Your task to perform on an android device: Show me popular games on the Play Store Image 0: 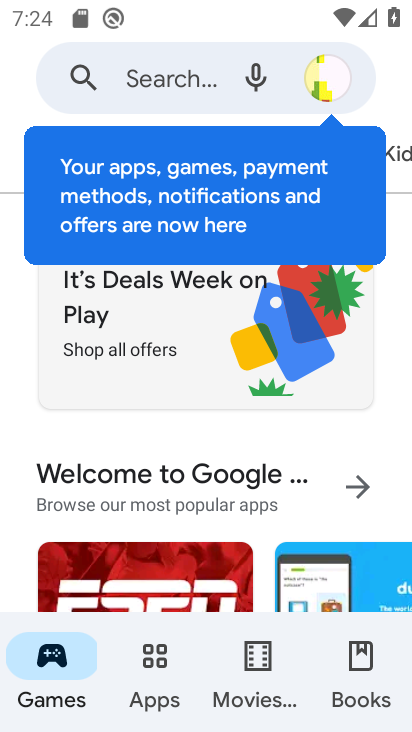
Step 0: press home button
Your task to perform on an android device: Show me popular games on the Play Store Image 1: 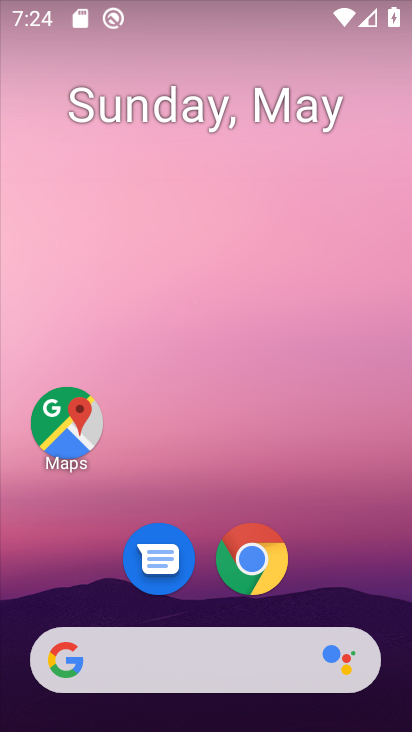
Step 1: drag from (213, 652) to (301, 0)
Your task to perform on an android device: Show me popular games on the Play Store Image 2: 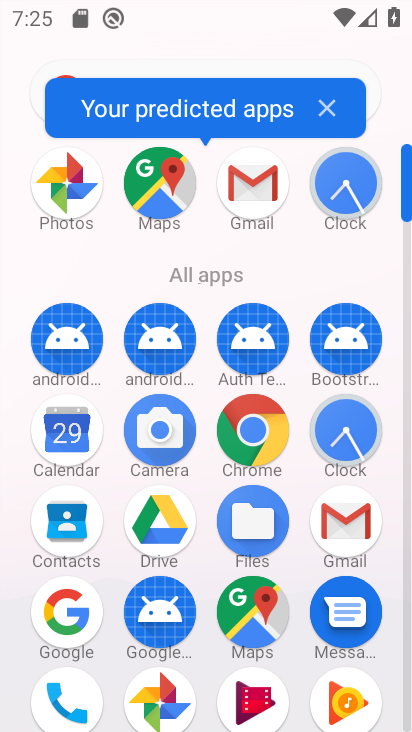
Step 2: drag from (173, 594) to (299, 223)
Your task to perform on an android device: Show me popular games on the Play Store Image 3: 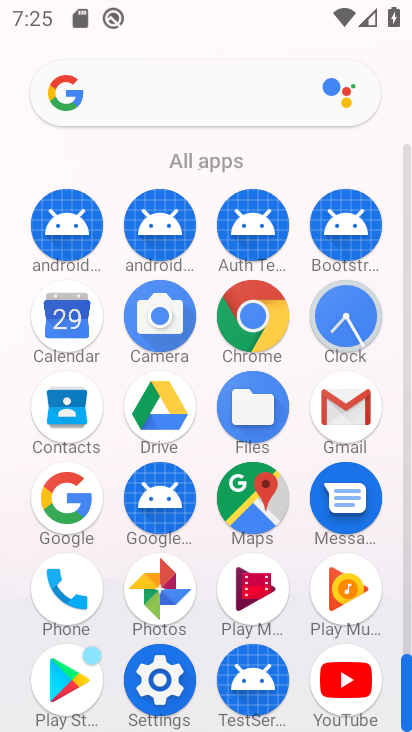
Step 3: click (66, 682)
Your task to perform on an android device: Show me popular games on the Play Store Image 4: 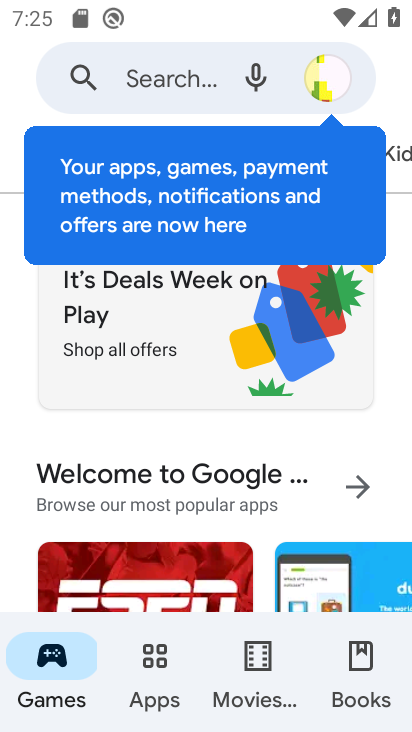
Step 4: drag from (180, 543) to (341, 231)
Your task to perform on an android device: Show me popular games on the Play Store Image 5: 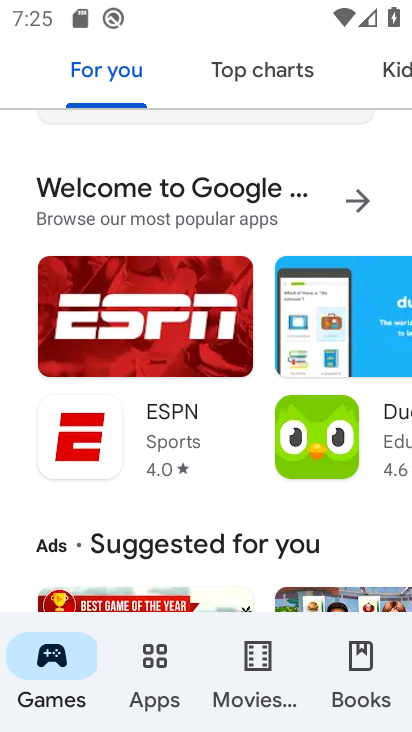
Step 5: drag from (251, 566) to (298, 309)
Your task to perform on an android device: Show me popular games on the Play Store Image 6: 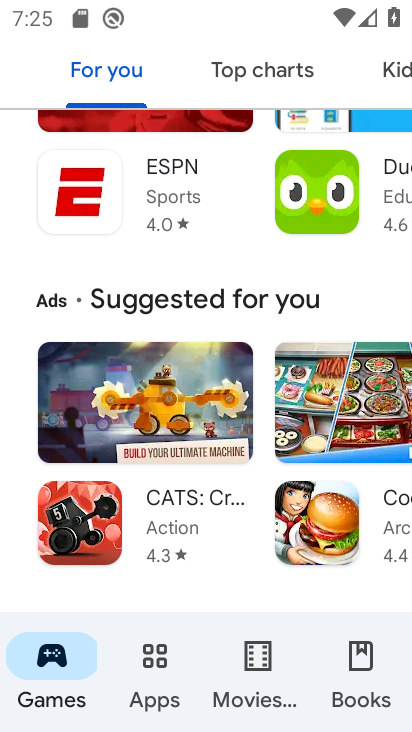
Step 6: drag from (195, 577) to (316, 205)
Your task to perform on an android device: Show me popular games on the Play Store Image 7: 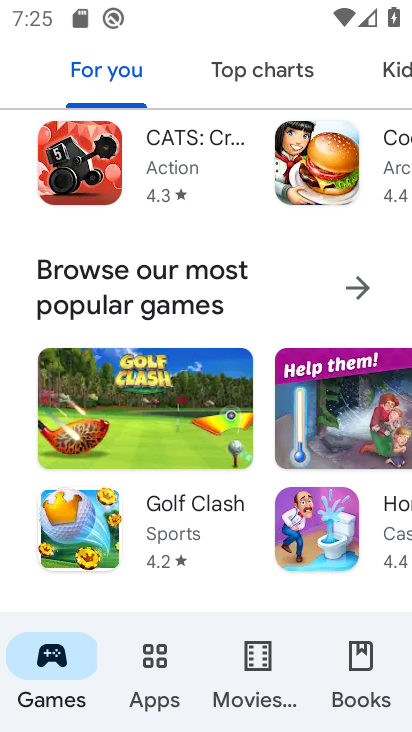
Step 7: click (198, 273)
Your task to perform on an android device: Show me popular games on the Play Store Image 8: 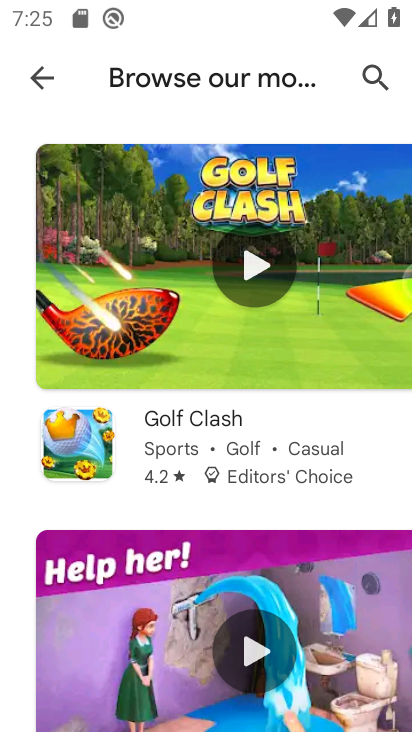
Step 8: task complete